Your task to perform on an android device: Open eBay Image 0: 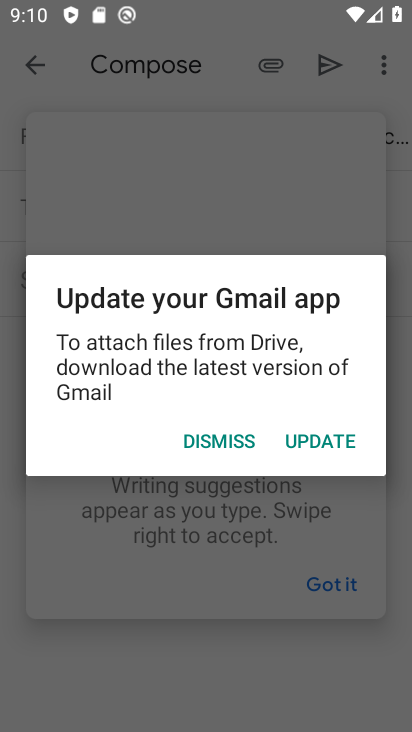
Step 0: press home button
Your task to perform on an android device: Open eBay Image 1: 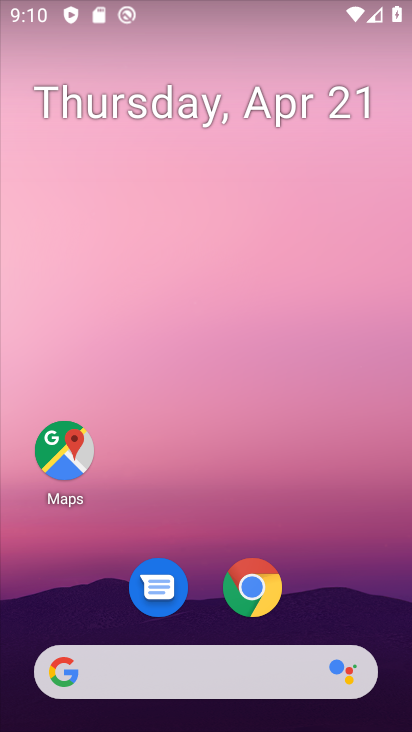
Step 1: drag from (308, 606) to (346, 188)
Your task to perform on an android device: Open eBay Image 2: 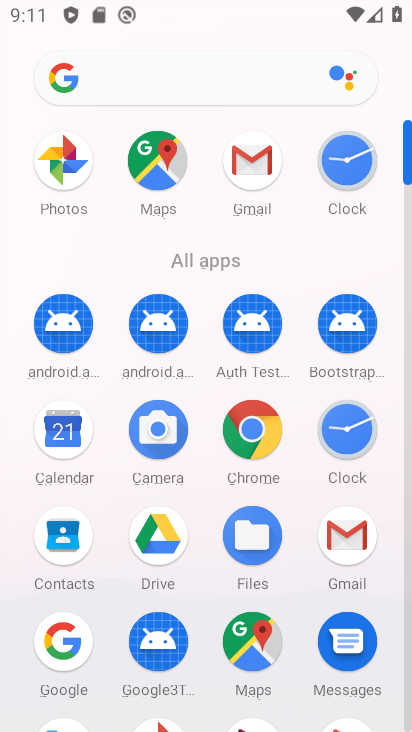
Step 2: click (251, 415)
Your task to perform on an android device: Open eBay Image 3: 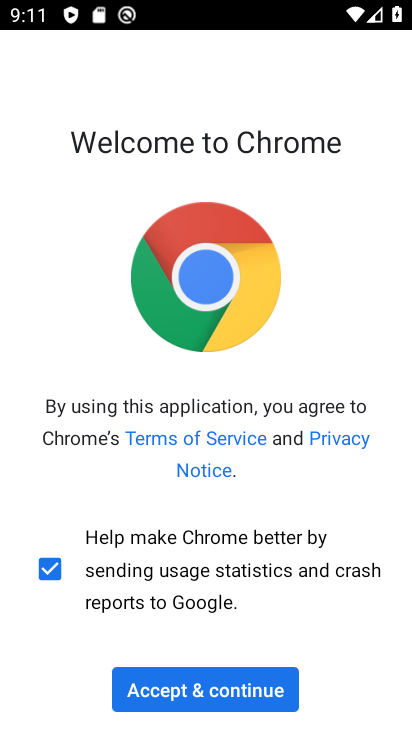
Step 3: click (193, 685)
Your task to perform on an android device: Open eBay Image 4: 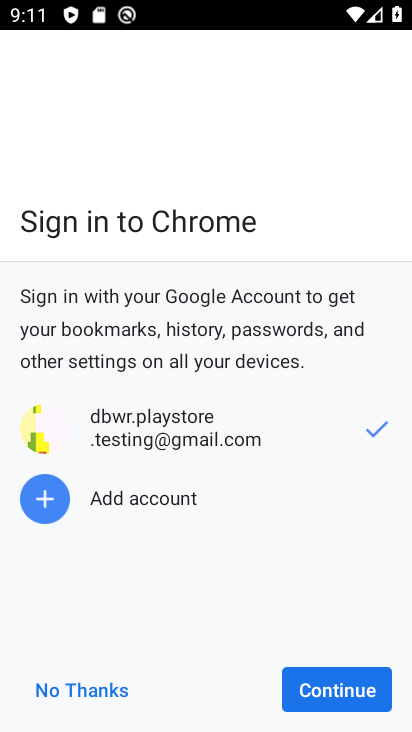
Step 4: click (317, 692)
Your task to perform on an android device: Open eBay Image 5: 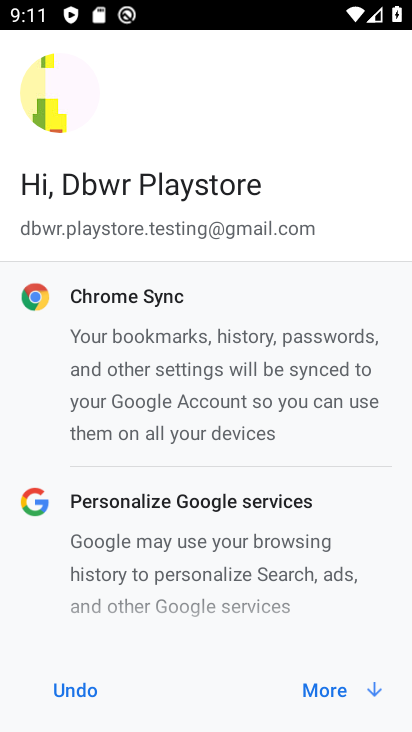
Step 5: click (315, 692)
Your task to perform on an android device: Open eBay Image 6: 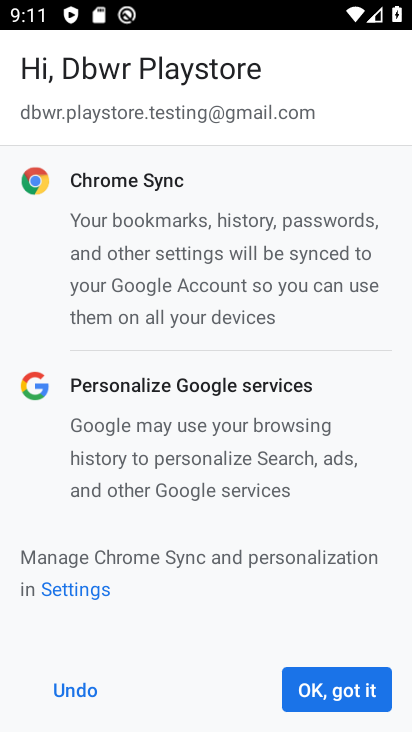
Step 6: click (314, 693)
Your task to perform on an android device: Open eBay Image 7: 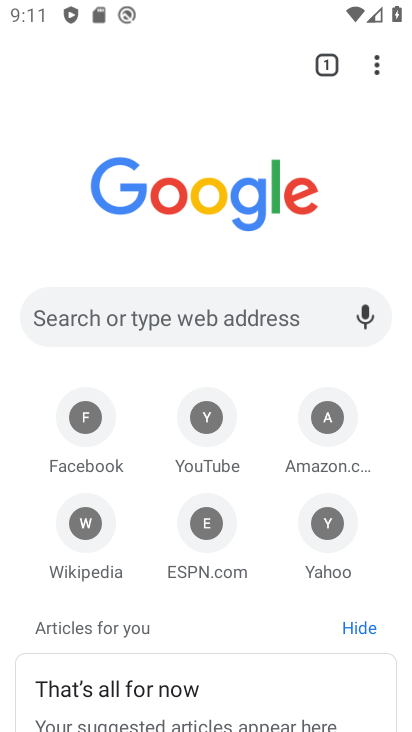
Step 7: click (180, 328)
Your task to perform on an android device: Open eBay Image 8: 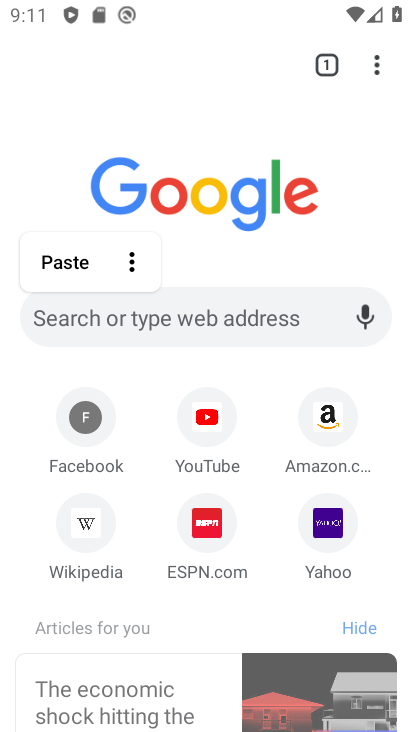
Step 8: click (269, 317)
Your task to perform on an android device: Open eBay Image 9: 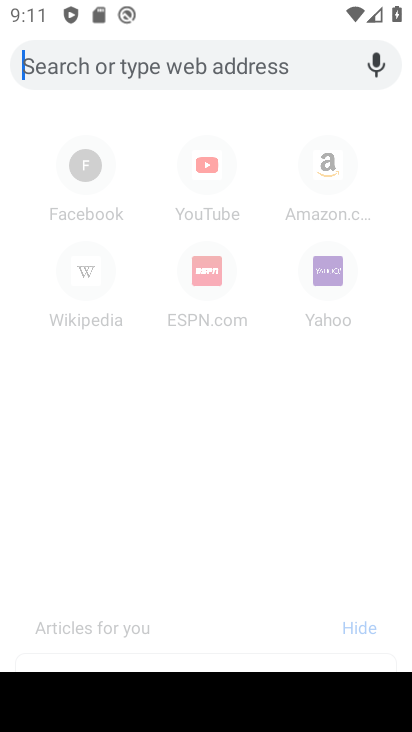
Step 9: type "ebay"
Your task to perform on an android device: Open eBay Image 10: 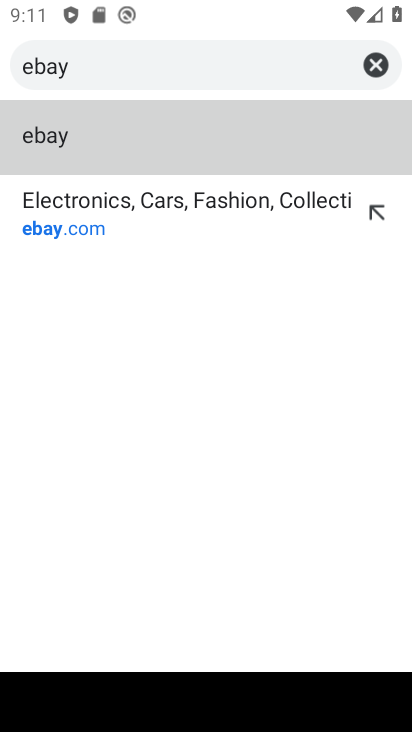
Step 10: click (84, 224)
Your task to perform on an android device: Open eBay Image 11: 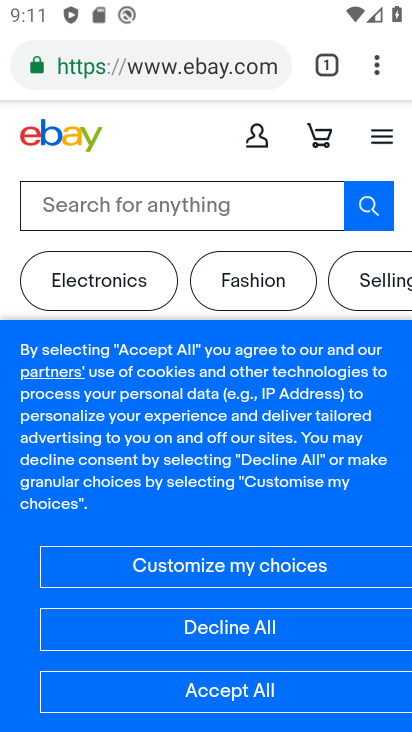
Step 11: task complete